Your task to perform on an android device: add a contact in the contacts app Image 0: 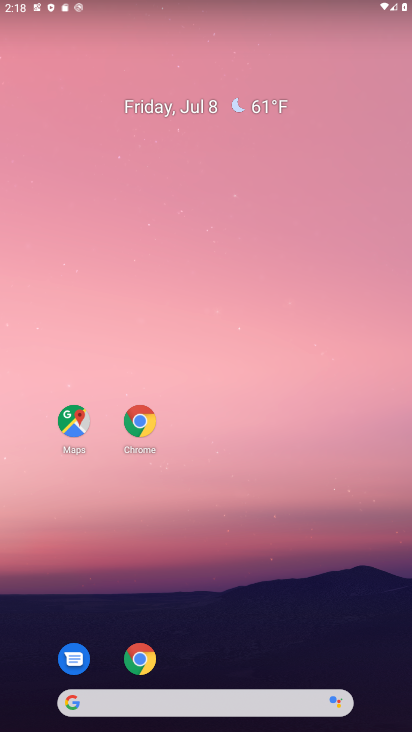
Step 0: drag from (230, 656) to (232, 219)
Your task to perform on an android device: add a contact in the contacts app Image 1: 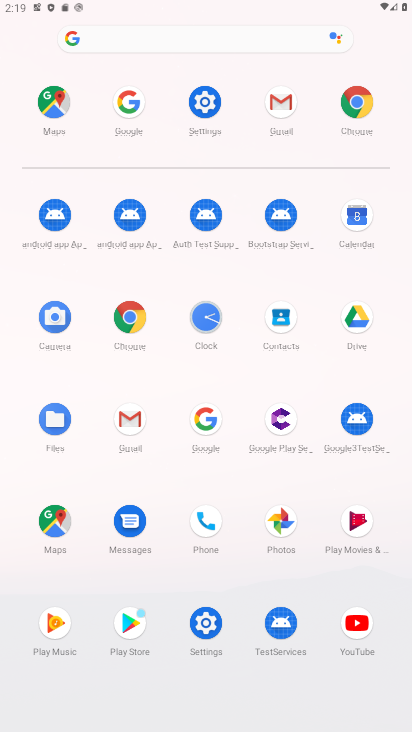
Step 1: click (205, 507)
Your task to perform on an android device: add a contact in the contacts app Image 2: 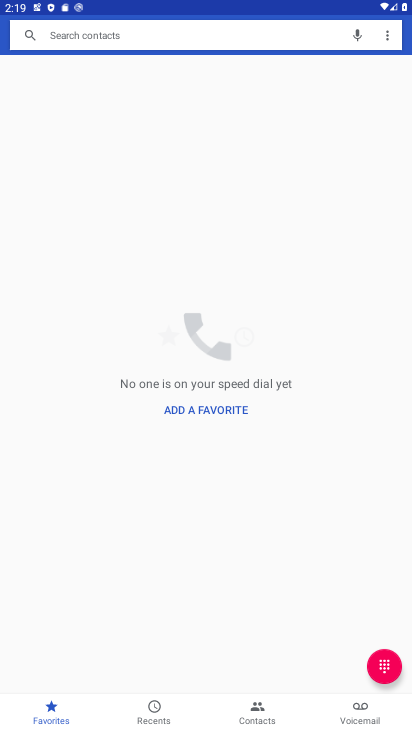
Step 2: click (254, 725)
Your task to perform on an android device: add a contact in the contacts app Image 3: 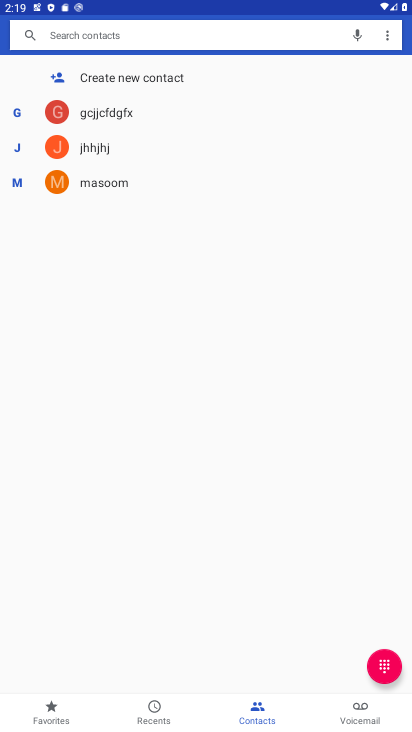
Step 3: click (123, 77)
Your task to perform on an android device: add a contact in the contacts app Image 4: 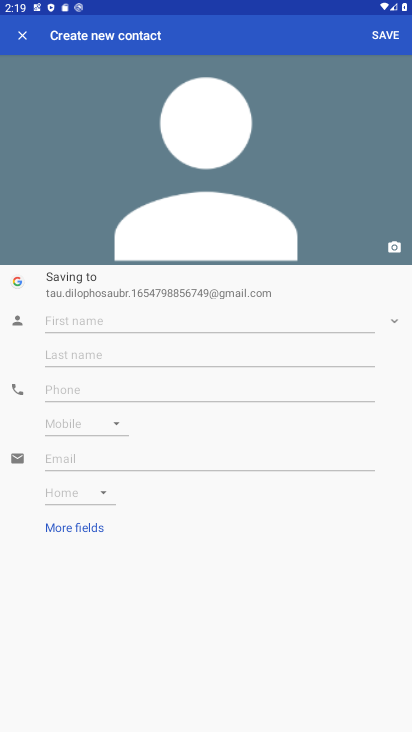
Step 4: click (168, 311)
Your task to perform on an android device: add a contact in the contacts app Image 5: 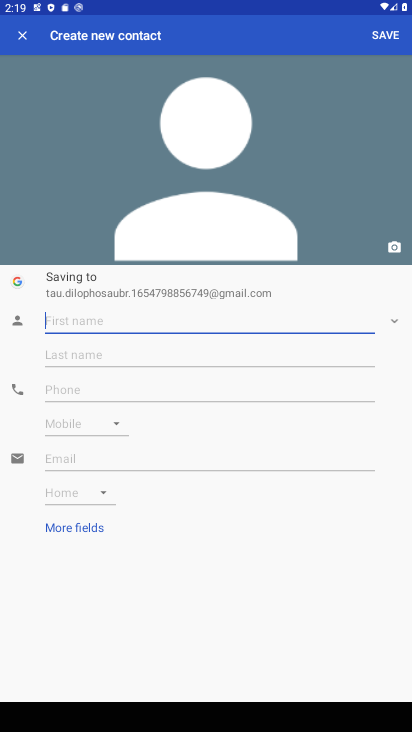
Step 5: type ""
Your task to perform on an android device: add a contact in the contacts app Image 6: 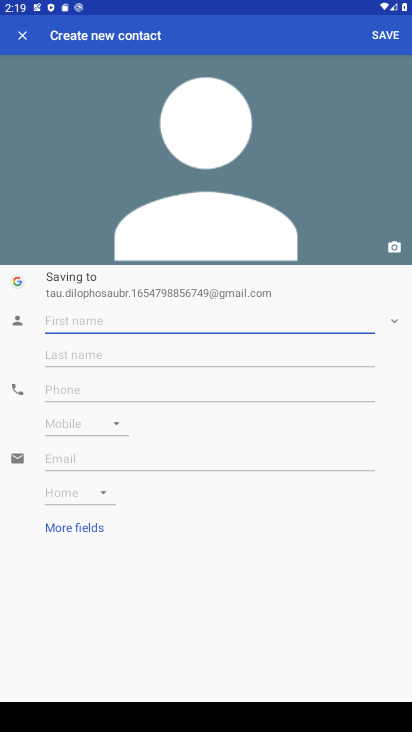
Step 6: type "gb"
Your task to perform on an android device: add a contact in the contacts app Image 7: 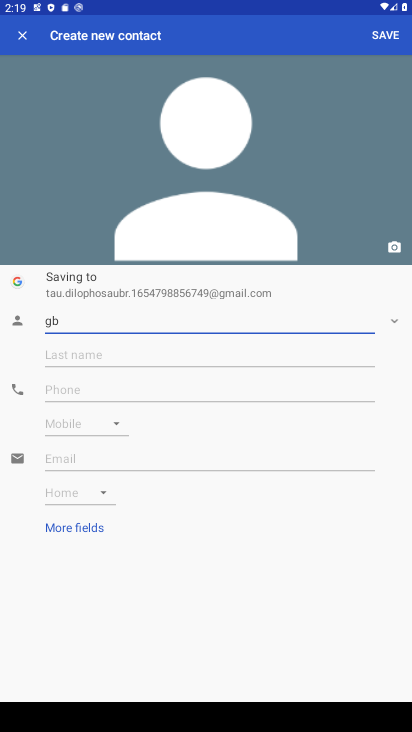
Step 7: click (128, 383)
Your task to perform on an android device: add a contact in the contacts app Image 8: 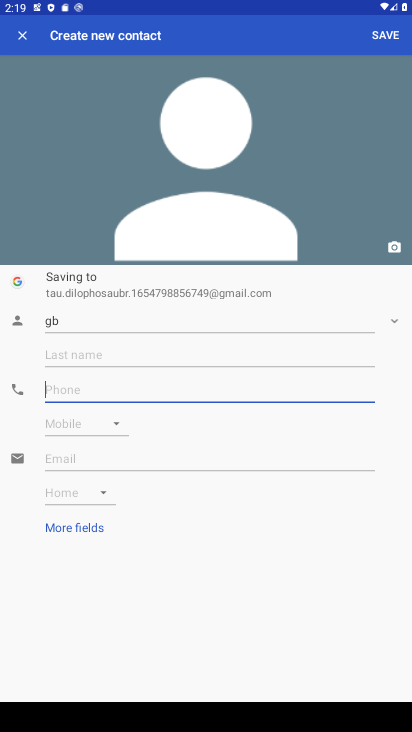
Step 8: type "67"
Your task to perform on an android device: add a contact in the contacts app Image 9: 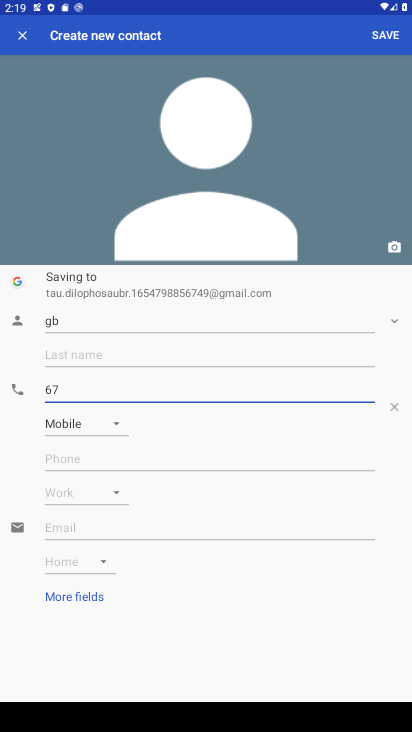
Step 9: click (378, 23)
Your task to perform on an android device: add a contact in the contacts app Image 10: 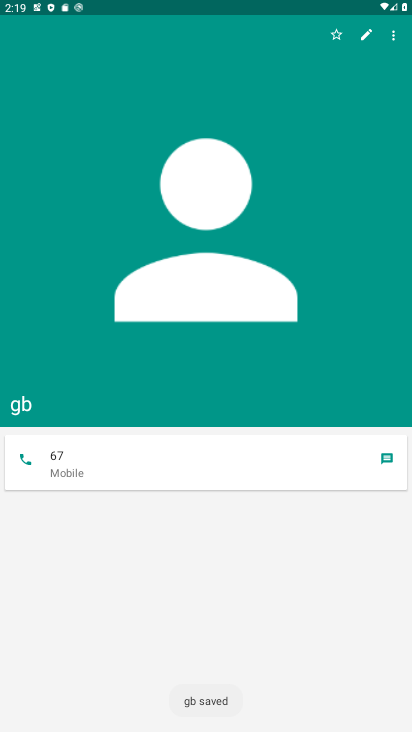
Step 10: task complete